Your task to perform on an android device: make emails show in primary in the gmail app Image 0: 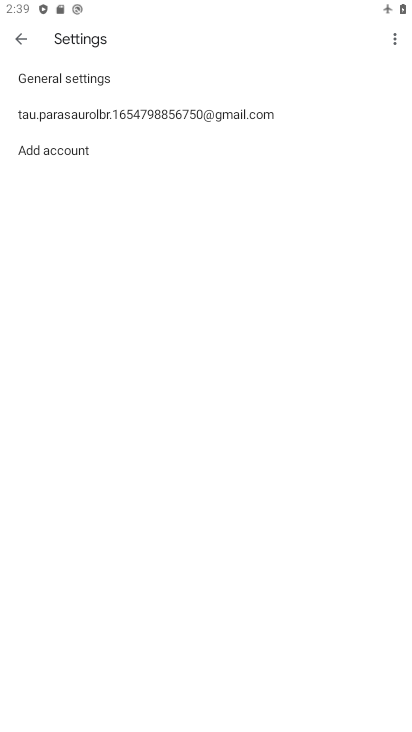
Step 0: press home button
Your task to perform on an android device: make emails show in primary in the gmail app Image 1: 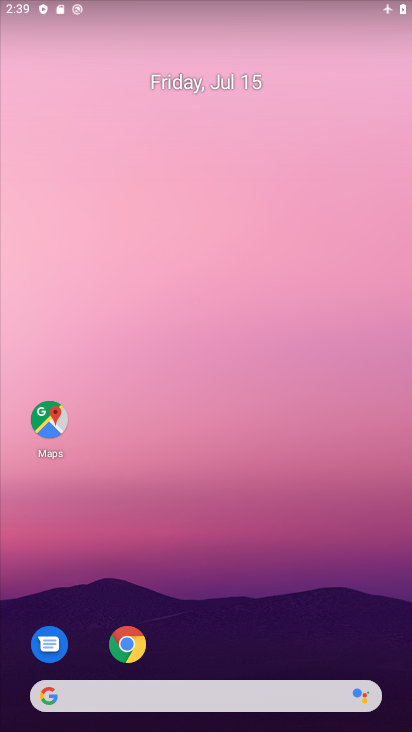
Step 1: drag from (298, 692) to (284, 6)
Your task to perform on an android device: make emails show in primary in the gmail app Image 2: 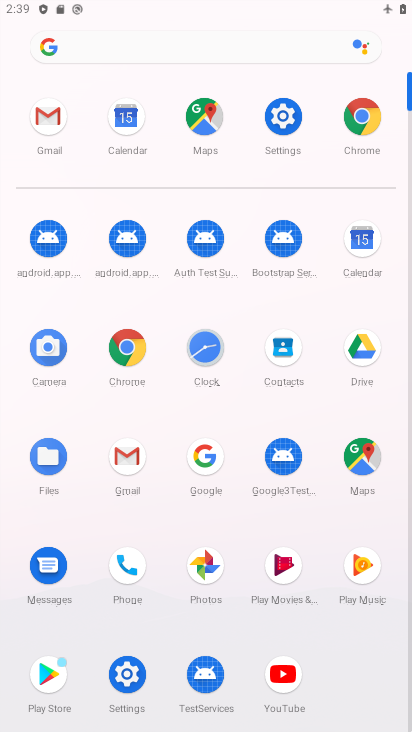
Step 2: click (129, 455)
Your task to perform on an android device: make emails show in primary in the gmail app Image 3: 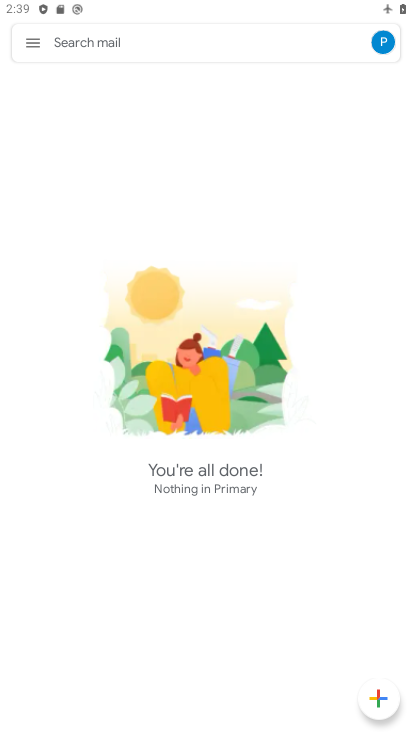
Step 3: click (23, 46)
Your task to perform on an android device: make emails show in primary in the gmail app Image 4: 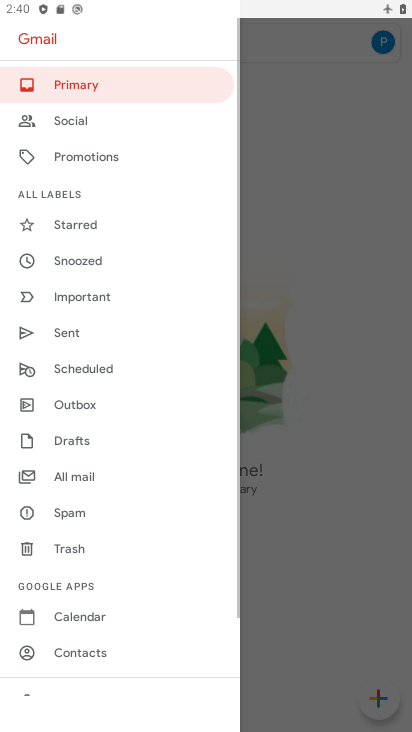
Step 4: drag from (76, 602) to (41, 224)
Your task to perform on an android device: make emails show in primary in the gmail app Image 5: 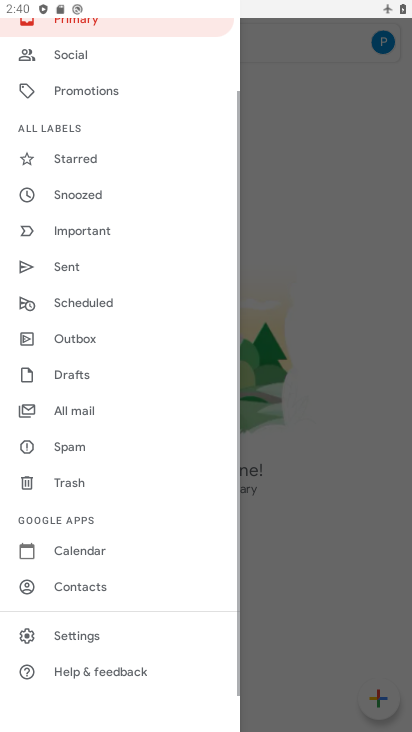
Step 5: click (100, 637)
Your task to perform on an android device: make emails show in primary in the gmail app Image 6: 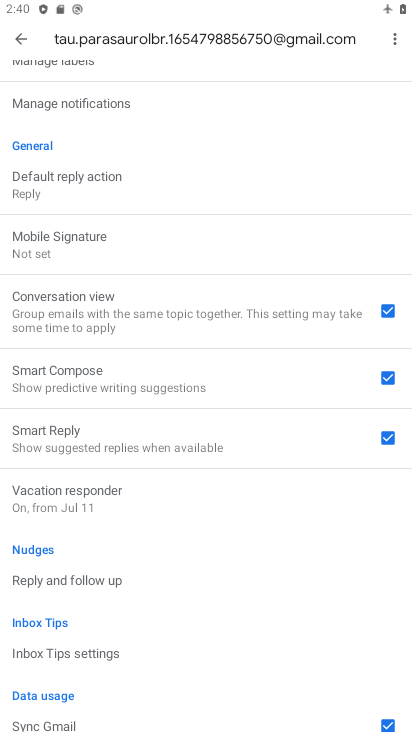
Step 6: drag from (122, 187) to (156, 721)
Your task to perform on an android device: make emails show in primary in the gmail app Image 7: 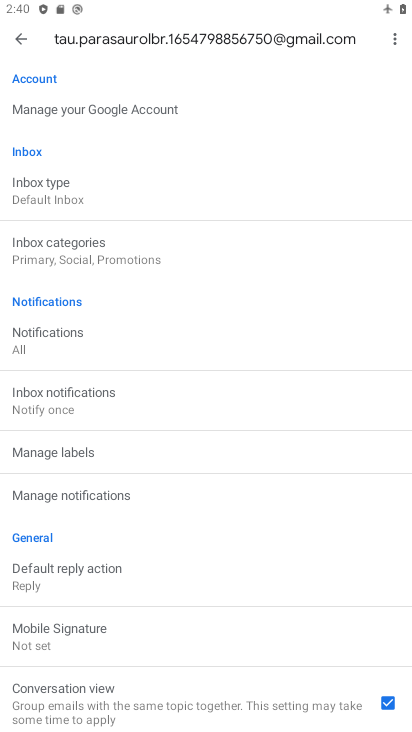
Step 7: click (85, 202)
Your task to perform on an android device: make emails show in primary in the gmail app Image 8: 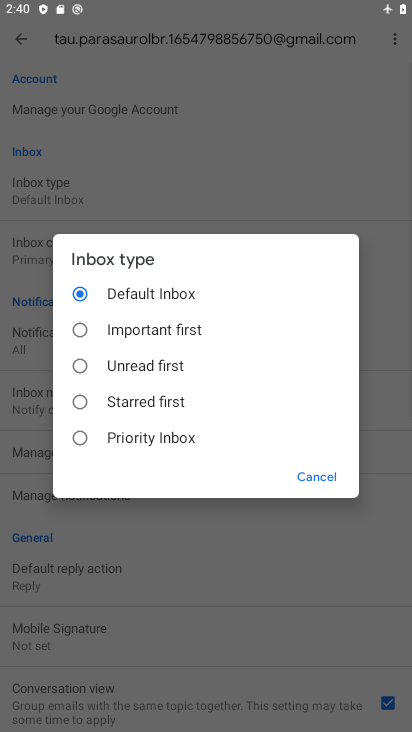
Step 8: press back button
Your task to perform on an android device: make emails show in primary in the gmail app Image 9: 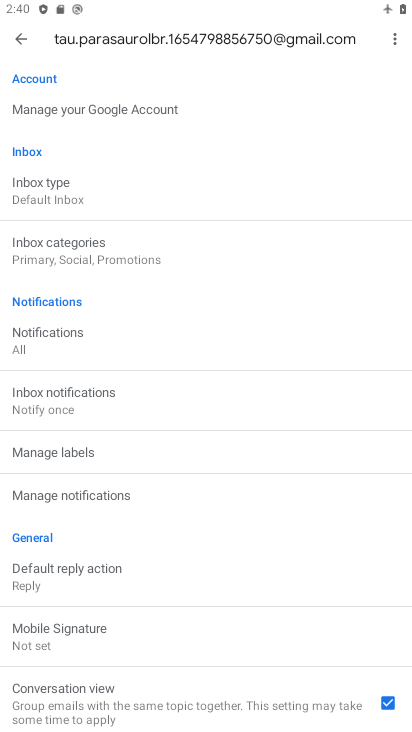
Step 9: press back button
Your task to perform on an android device: make emails show in primary in the gmail app Image 10: 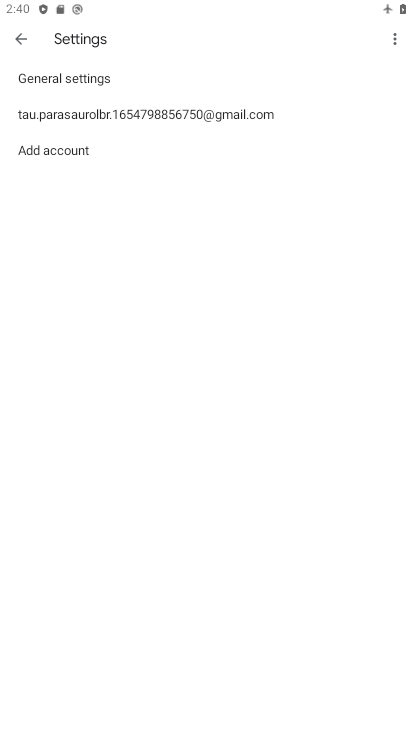
Step 10: press back button
Your task to perform on an android device: make emails show in primary in the gmail app Image 11: 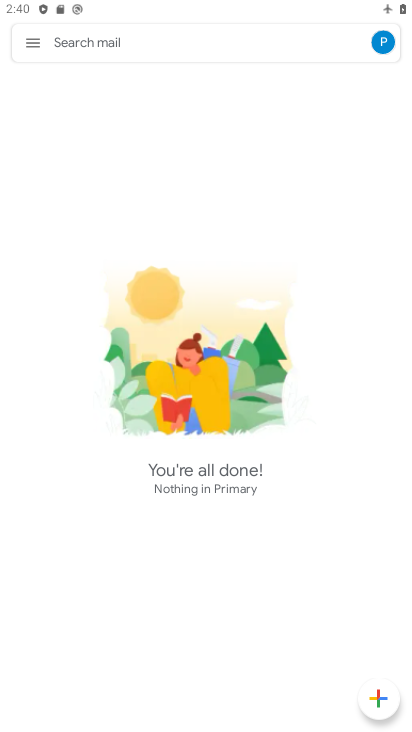
Step 11: click (32, 36)
Your task to perform on an android device: make emails show in primary in the gmail app Image 12: 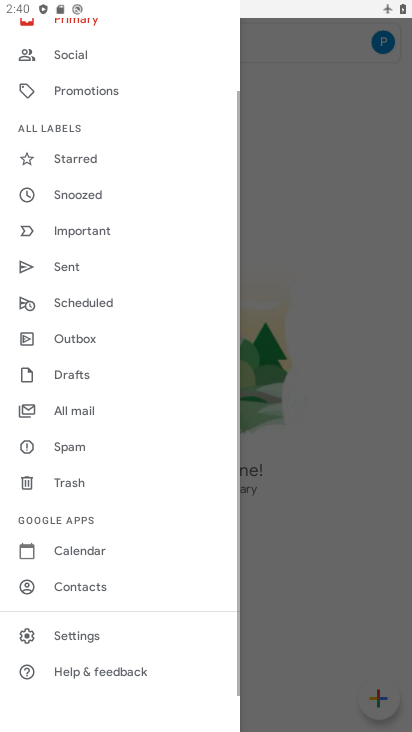
Step 12: drag from (106, 78) to (118, 565)
Your task to perform on an android device: make emails show in primary in the gmail app Image 13: 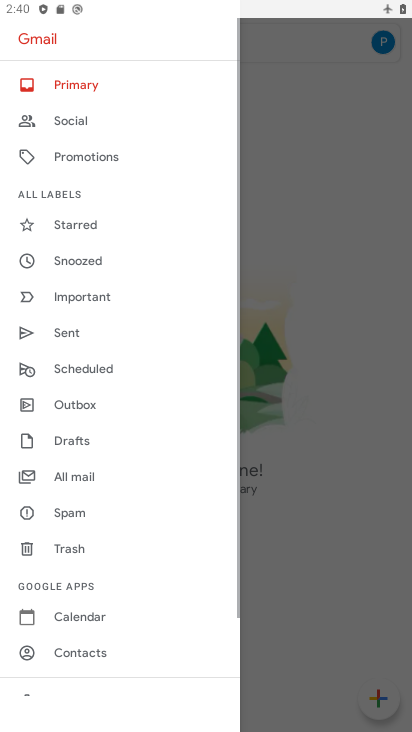
Step 13: click (94, 81)
Your task to perform on an android device: make emails show in primary in the gmail app Image 14: 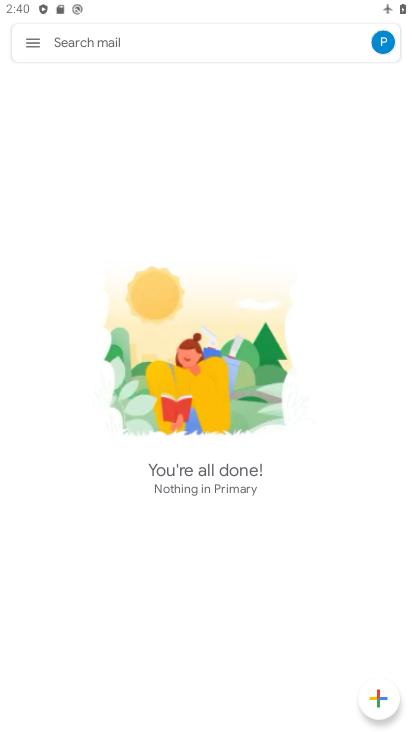
Step 14: task complete